Your task to perform on an android device: turn off location Image 0: 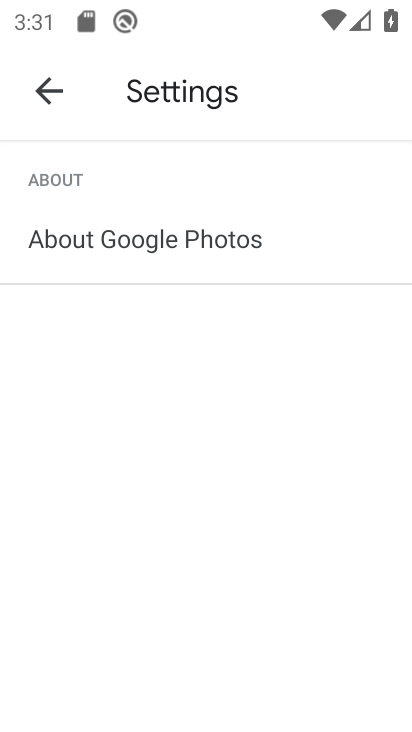
Step 0: press home button
Your task to perform on an android device: turn off location Image 1: 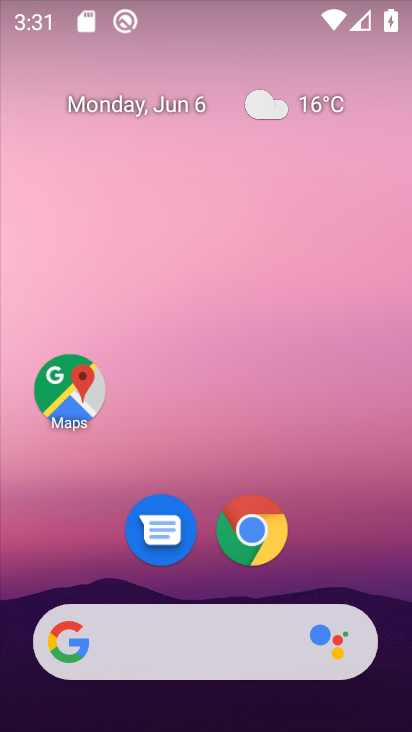
Step 1: drag from (332, 548) to (327, 141)
Your task to perform on an android device: turn off location Image 2: 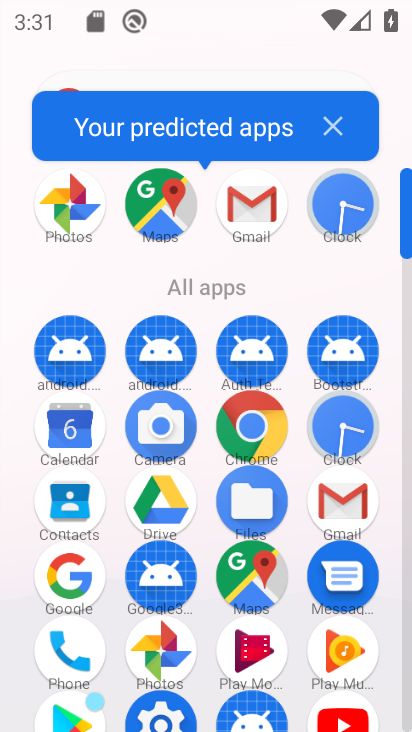
Step 2: click (165, 723)
Your task to perform on an android device: turn off location Image 3: 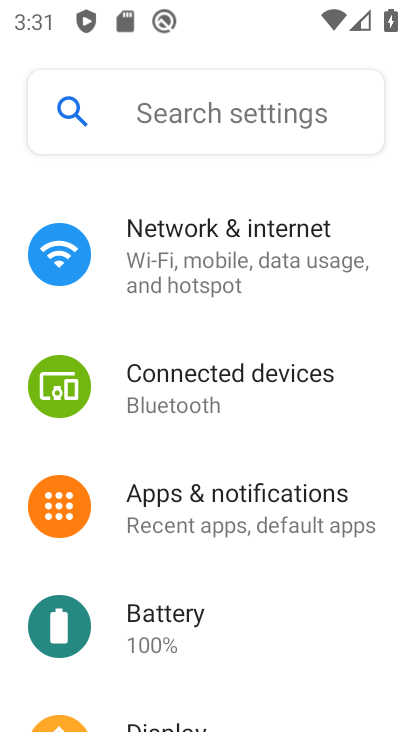
Step 3: drag from (301, 528) to (389, 88)
Your task to perform on an android device: turn off location Image 4: 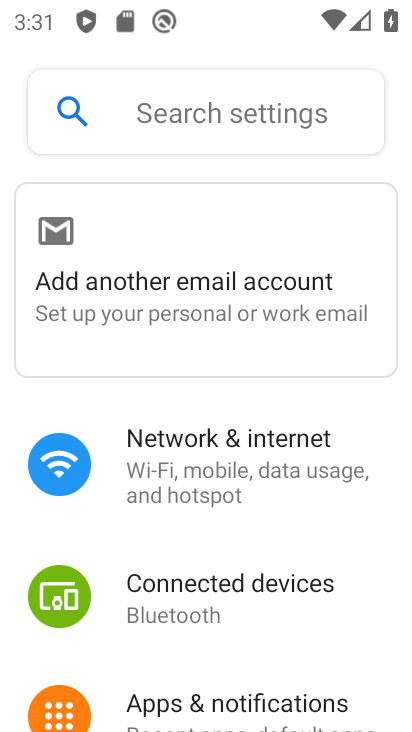
Step 4: drag from (256, 574) to (281, 147)
Your task to perform on an android device: turn off location Image 5: 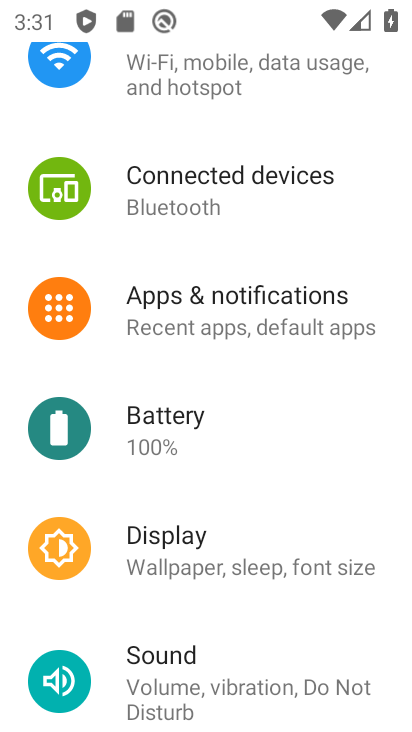
Step 5: drag from (218, 599) to (245, 153)
Your task to perform on an android device: turn off location Image 6: 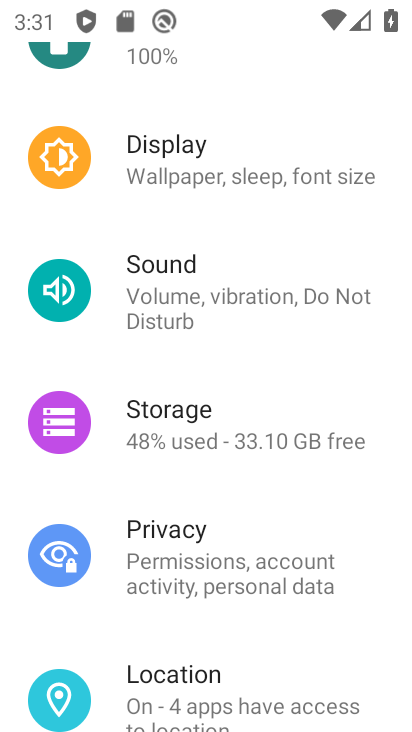
Step 6: click (215, 694)
Your task to perform on an android device: turn off location Image 7: 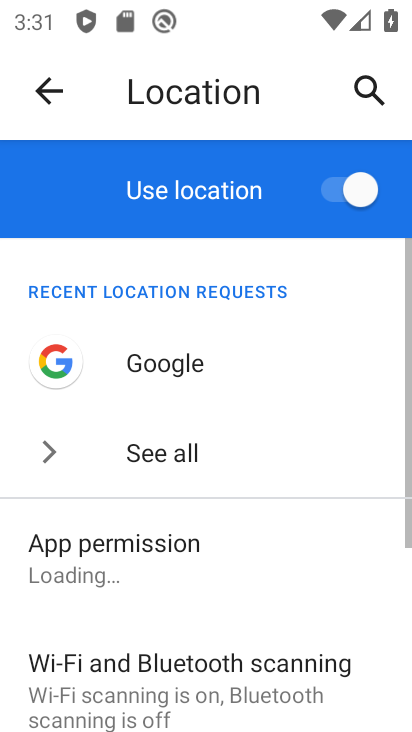
Step 7: click (338, 193)
Your task to perform on an android device: turn off location Image 8: 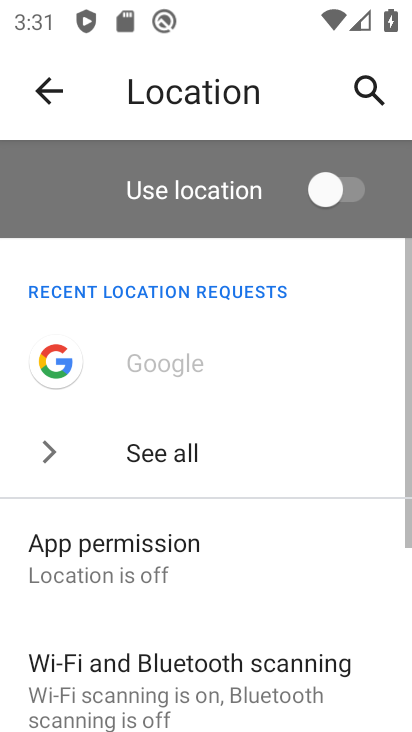
Step 8: task complete